Your task to perform on an android device: Open Chrome and go to settings Image 0: 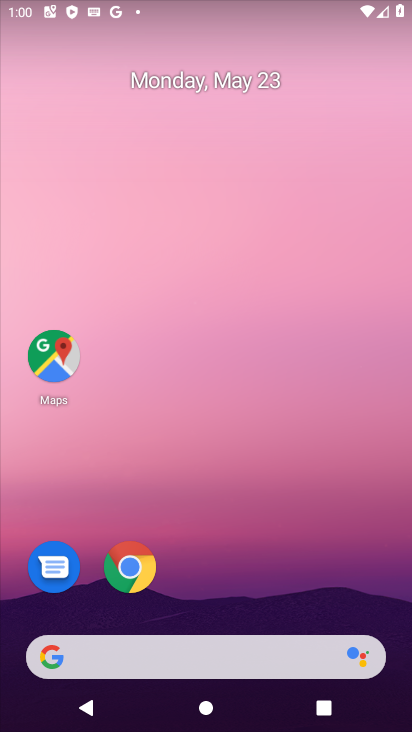
Step 0: drag from (246, 608) to (267, 126)
Your task to perform on an android device: Open Chrome and go to settings Image 1: 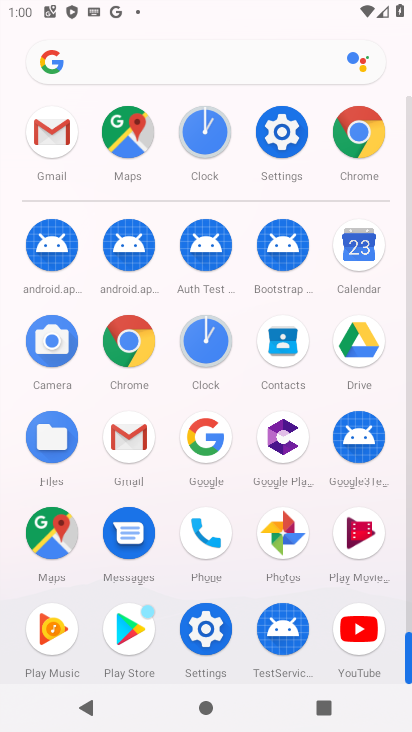
Step 1: click (367, 117)
Your task to perform on an android device: Open Chrome and go to settings Image 2: 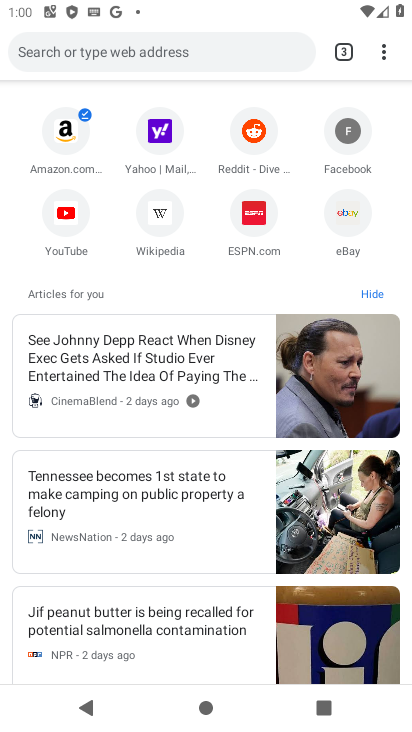
Step 2: click (381, 63)
Your task to perform on an android device: Open Chrome and go to settings Image 3: 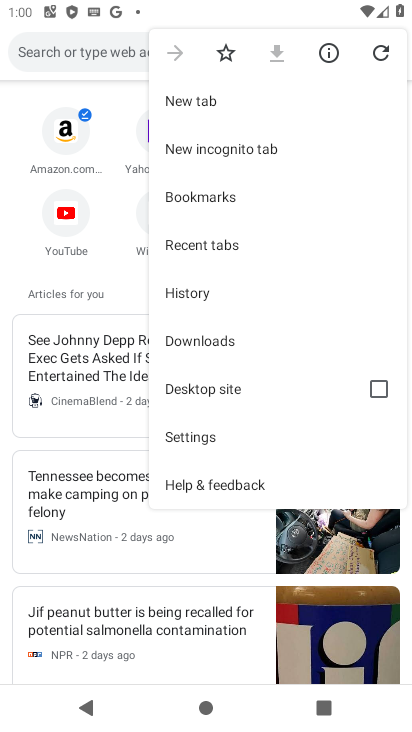
Step 3: click (245, 440)
Your task to perform on an android device: Open Chrome and go to settings Image 4: 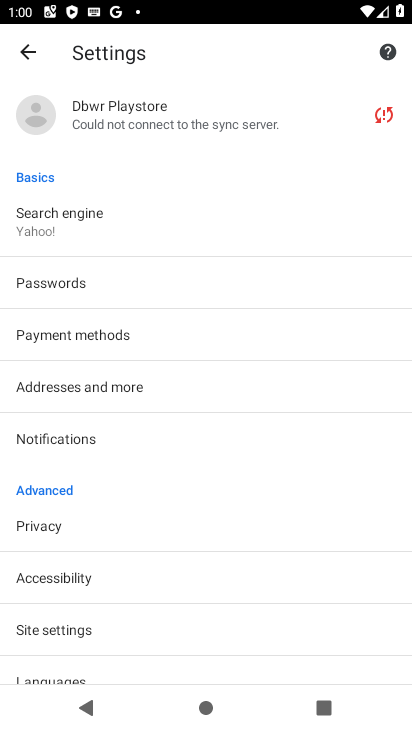
Step 4: task complete